Your task to perform on an android device: Open calendar and show me the second week of next month Image 0: 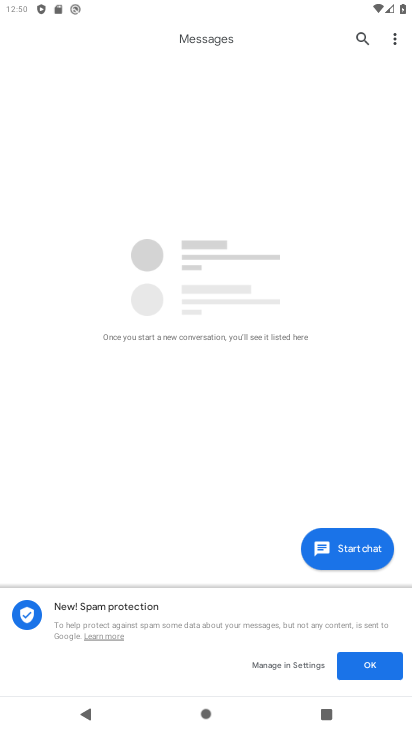
Step 0: press home button
Your task to perform on an android device: Open calendar and show me the second week of next month Image 1: 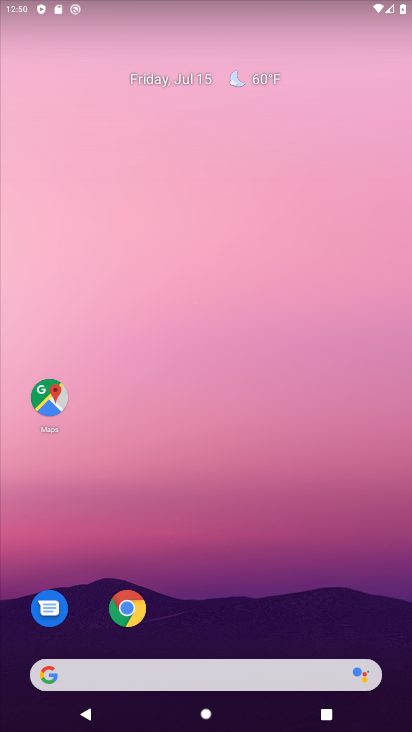
Step 1: drag from (270, 614) to (259, 61)
Your task to perform on an android device: Open calendar and show me the second week of next month Image 2: 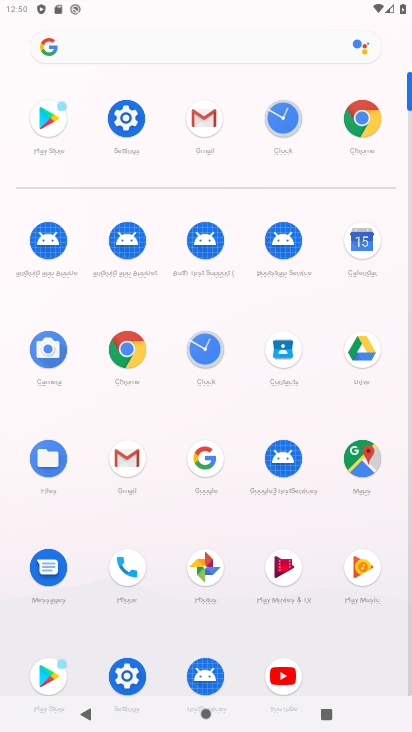
Step 2: click (358, 251)
Your task to perform on an android device: Open calendar and show me the second week of next month Image 3: 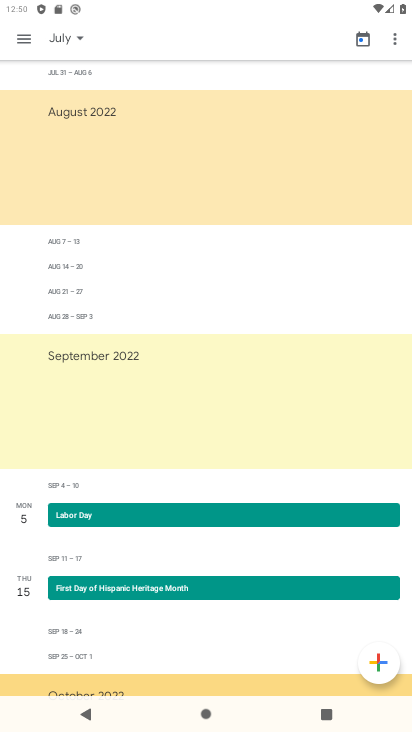
Step 3: click (65, 46)
Your task to perform on an android device: Open calendar and show me the second week of next month Image 4: 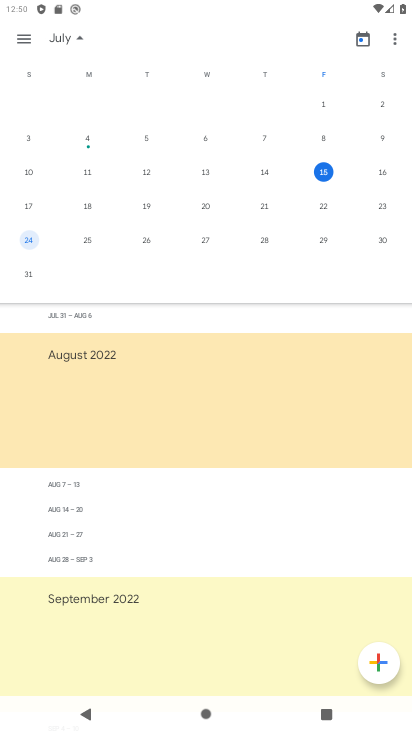
Step 4: drag from (327, 261) to (4, 285)
Your task to perform on an android device: Open calendar and show me the second week of next month Image 5: 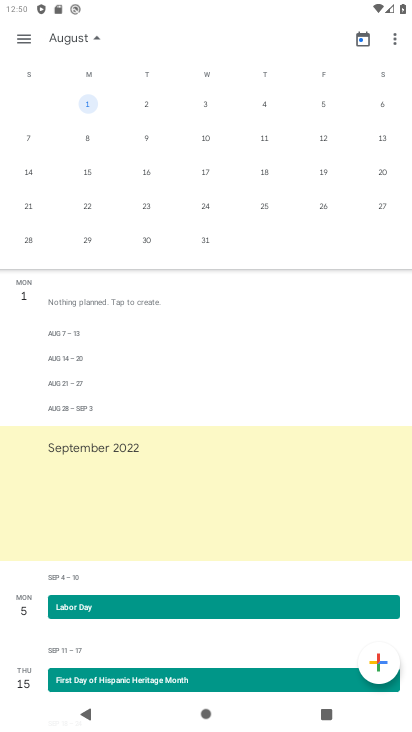
Step 5: click (85, 134)
Your task to perform on an android device: Open calendar and show me the second week of next month Image 6: 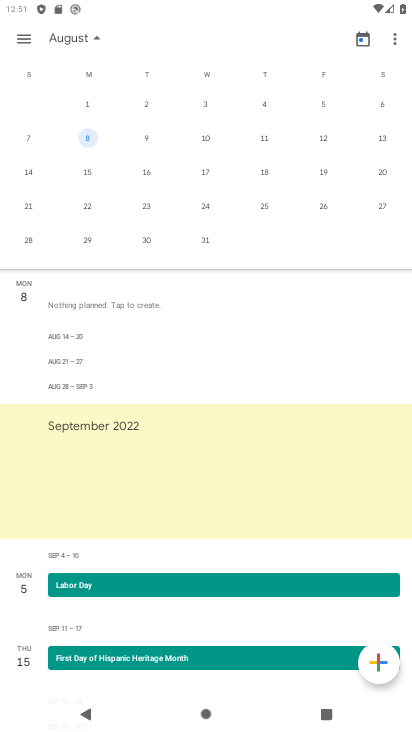
Step 6: task complete